Your task to perform on an android device: Open the contacts Image 0: 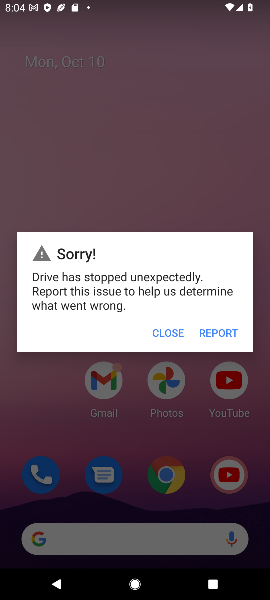
Step 0: click (164, 330)
Your task to perform on an android device: Open the contacts Image 1: 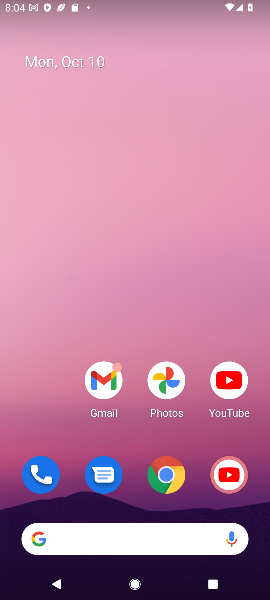
Step 1: drag from (136, 497) to (108, 219)
Your task to perform on an android device: Open the contacts Image 2: 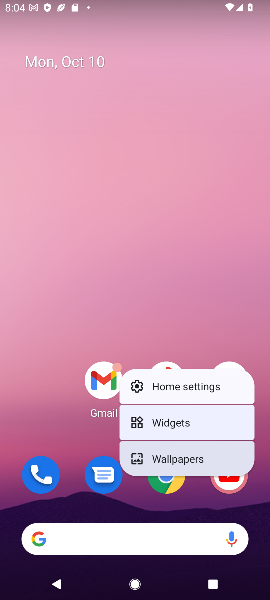
Step 2: click (134, 496)
Your task to perform on an android device: Open the contacts Image 3: 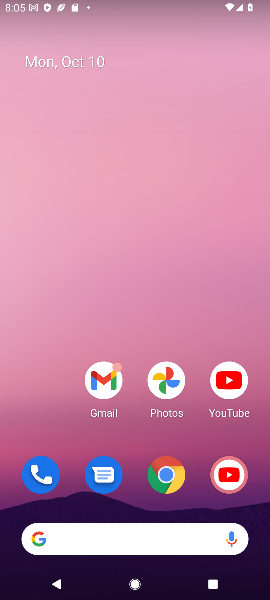
Step 3: drag from (134, 502) to (136, 51)
Your task to perform on an android device: Open the contacts Image 4: 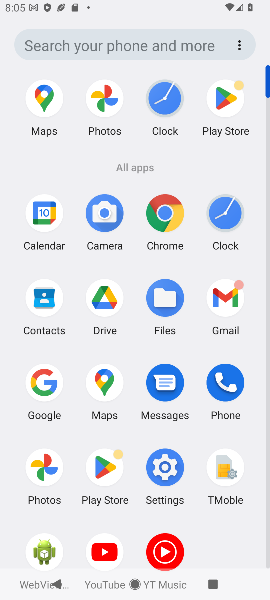
Step 4: click (49, 317)
Your task to perform on an android device: Open the contacts Image 5: 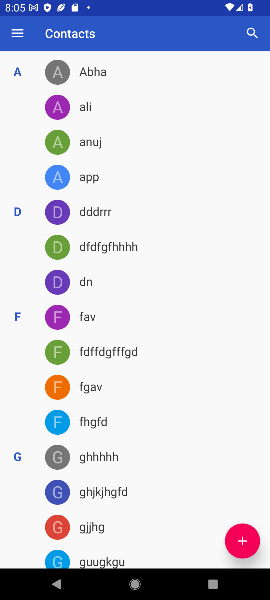
Step 5: task complete